Your task to perform on an android device: Do I have any events today? Image 0: 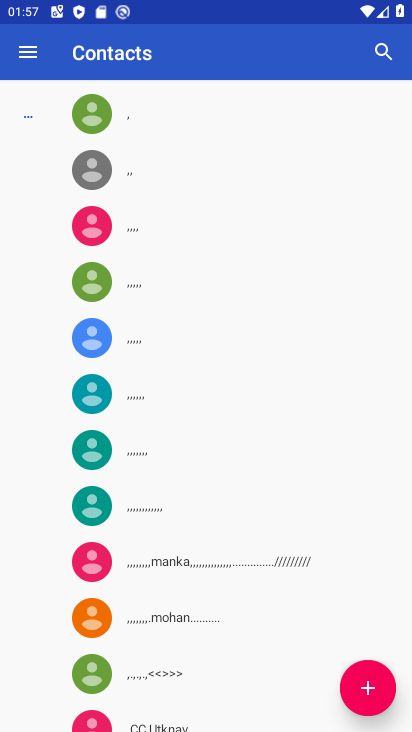
Step 0: press home button
Your task to perform on an android device: Do I have any events today? Image 1: 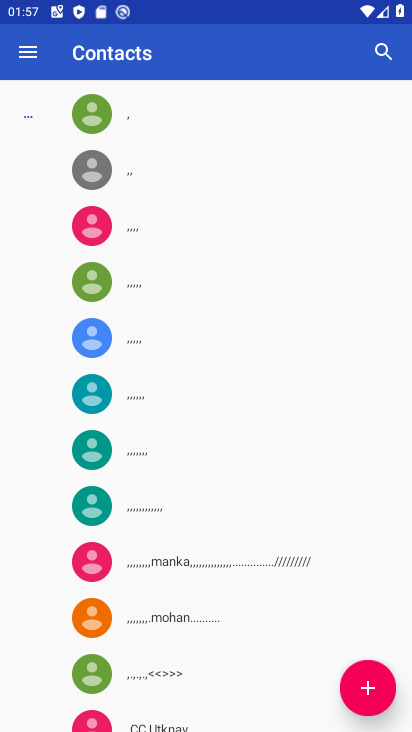
Step 1: press home button
Your task to perform on an android device: Do I have any events today? Image 2: 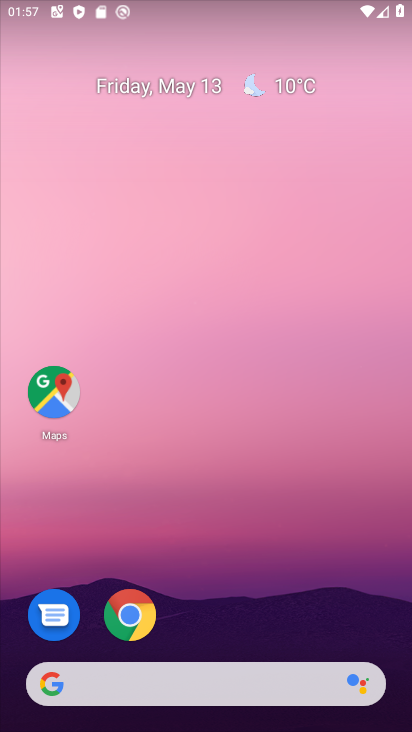
Step 2: drag from (121, 292) to (68, 121)
Your task to perform on an android device: Do I have any events today? Image 3: 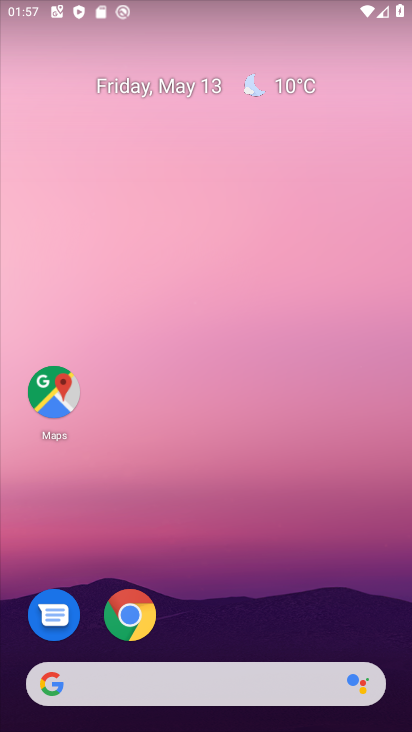
Step 3: drag from (220, 593) to (58, 96)
Your task to perform on an android device: Do I have any events today? Image 4: 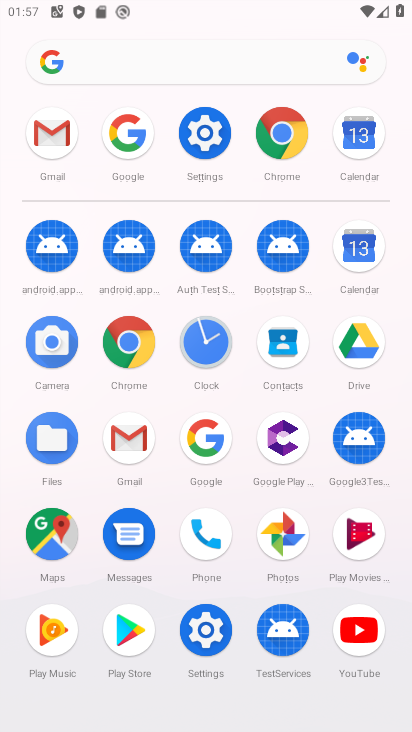
Step 4: click (362, 144)
Your task to perform on an android device: Do I have any events today? Image 5: 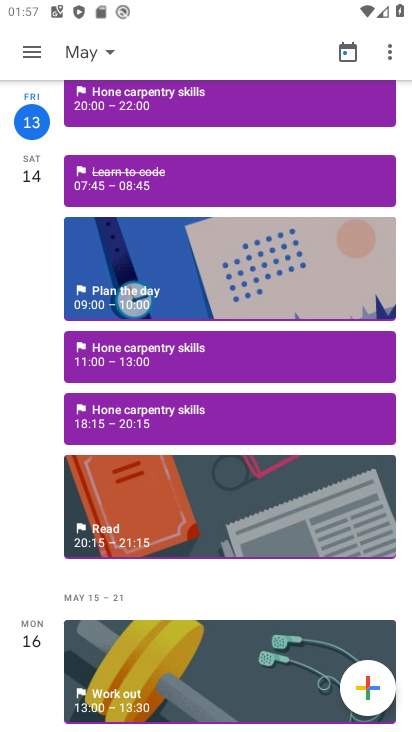
Step 5: task complete